Your task to perform on an android device: turn pop-ups on in chrome Image 0: 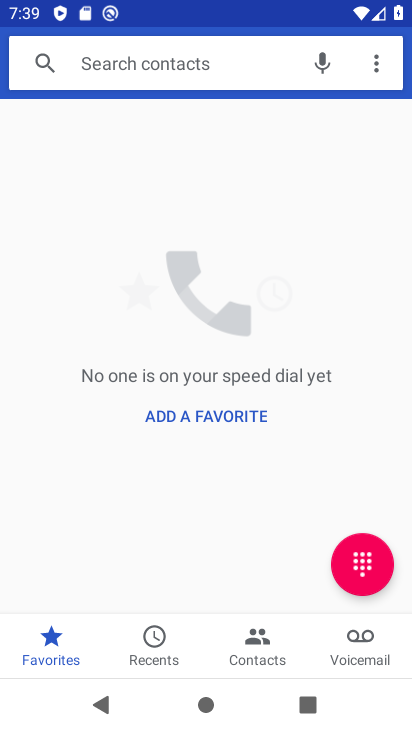
Step 0: press home button
Your task to perform on an android device: turn pop-ups on in chrome Image 1: 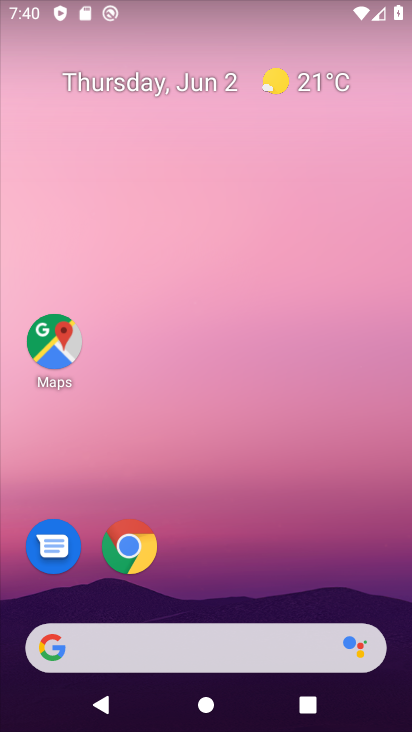
Step 1: click (128, 559)
Your task to perform on an android device: turn pop-ups on in chrome Image 2: 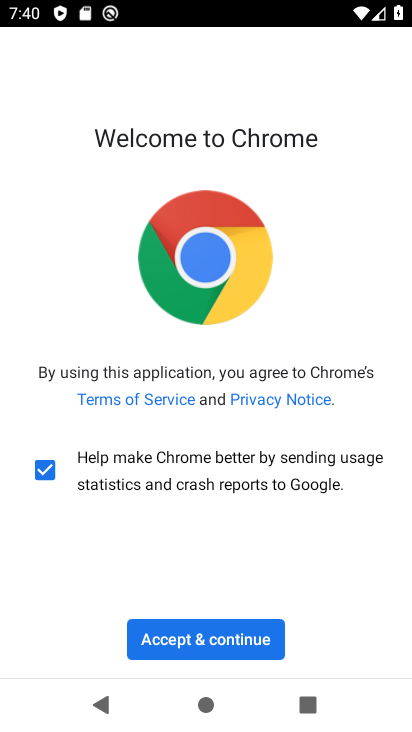
Step 2: click (195, 635)
Your task to perform on an android device: turn pop-ups on in chrome Image 3: 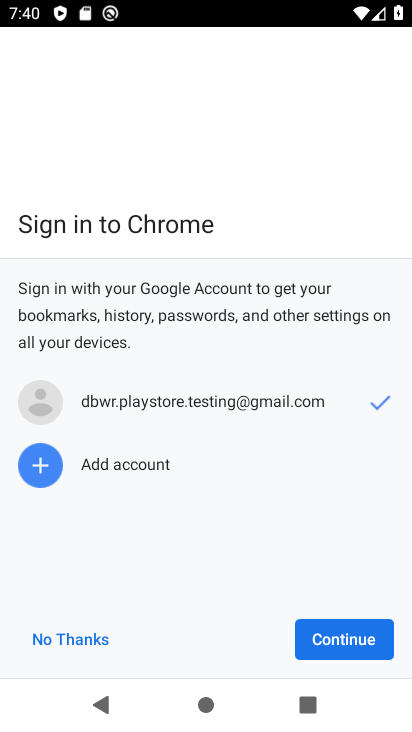
Step 3: click (357, 636)
Your task to perform on an android device: turn pop-ups on in chrome Image 4: 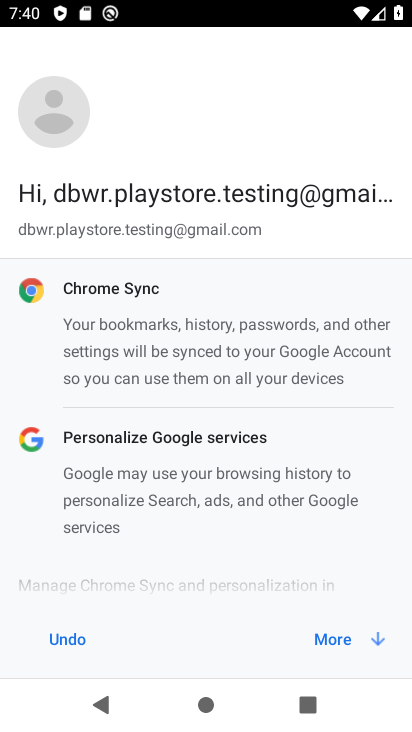
Step 4: click (357, 636)
Your task to perform on an android device: turn pop-ups on in chrome Image 5: 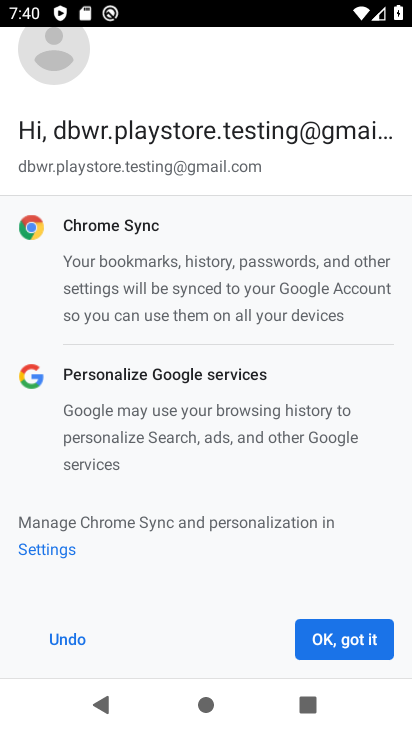
Step 5: click (357, 636)
Your task to perform on an android device: turn pop-ups on in chrome Image 6: 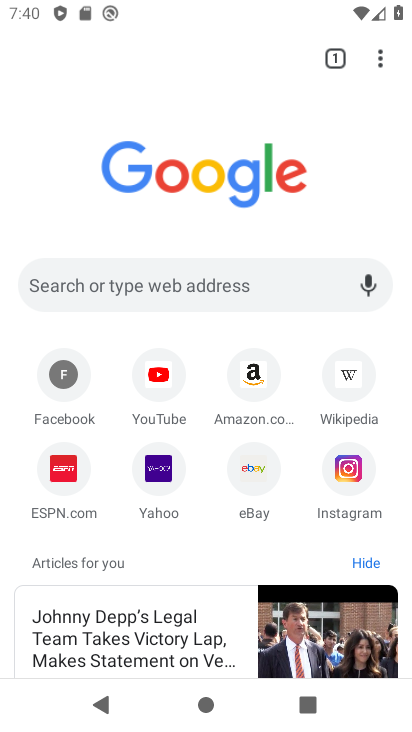
Step 6: click (378, 58)
Your task to perform on an android device: turn pop-ups on in chrome Image 7: 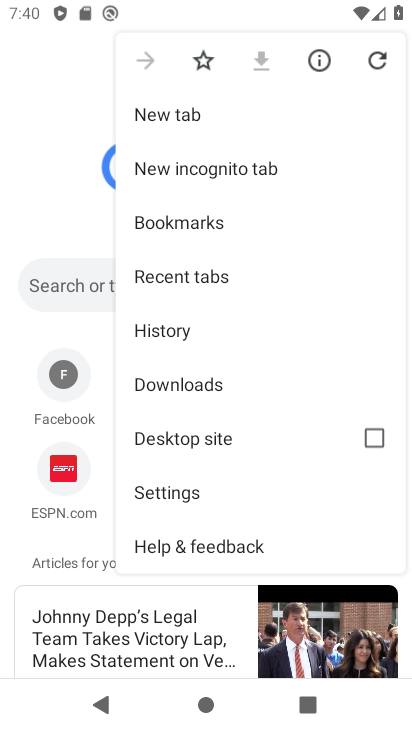
Step 7: click (215, 488)
Your task to perform on an android device: turn pop-ups on in chrome Image 8: 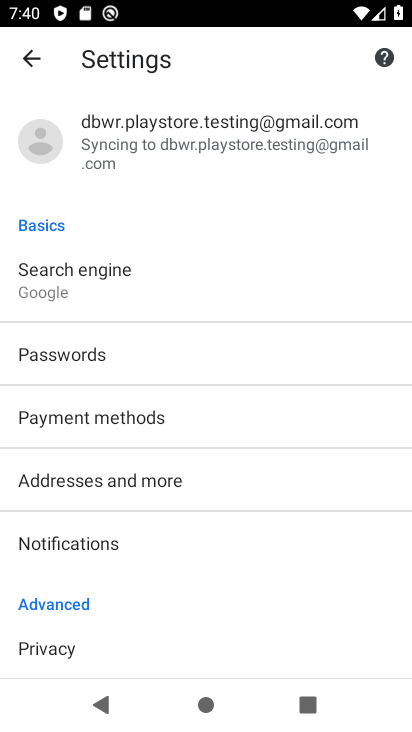
Step 8: drag from (228, 470) to (215, 225)
Your task to perform on an android device: turn pop-ups on in chrome Image 9: 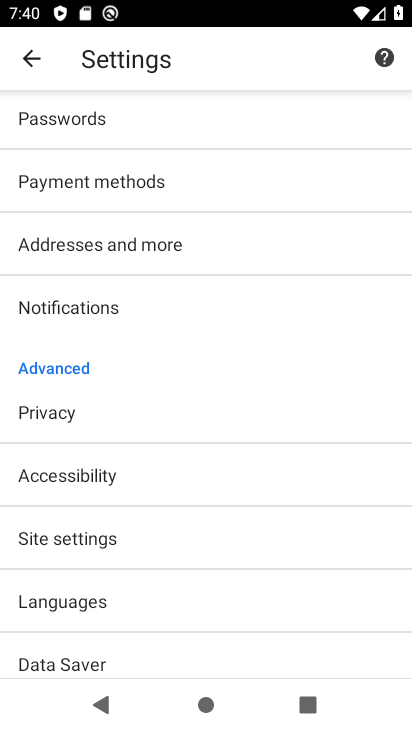
Step 9: click (178, 529)
Your task to perform on an android device: turn pop-ups on in chrome Image 10: 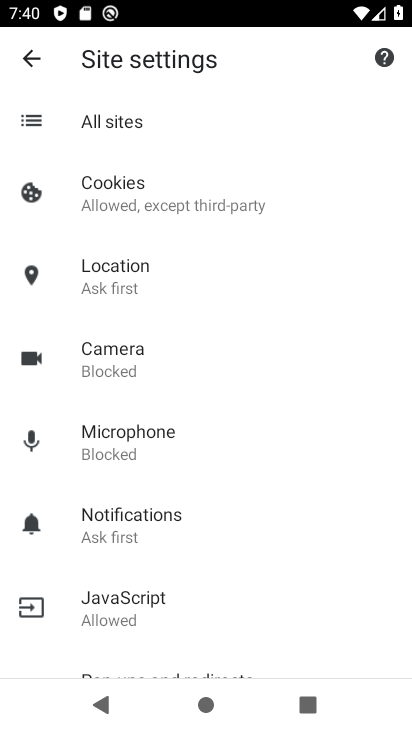
Step 10: drag from (234, 466) to (234, 192)
Your task to perform on an android device: turn pop-ups on in chrome Image 11: 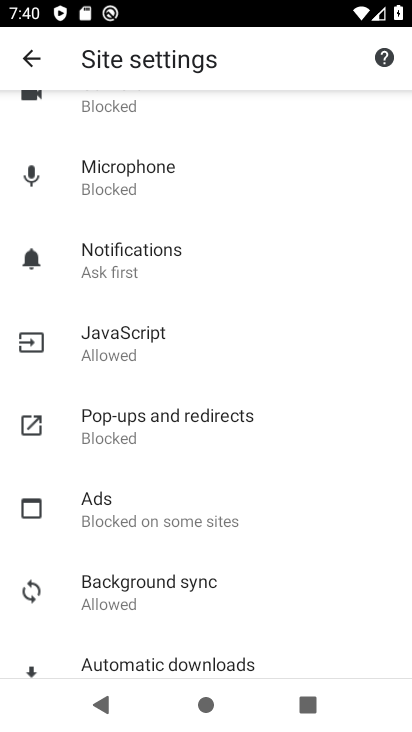
Step 11: click (210, 420)
Your task to perform on an android device: turn pop-ups on in chrome Image 12: 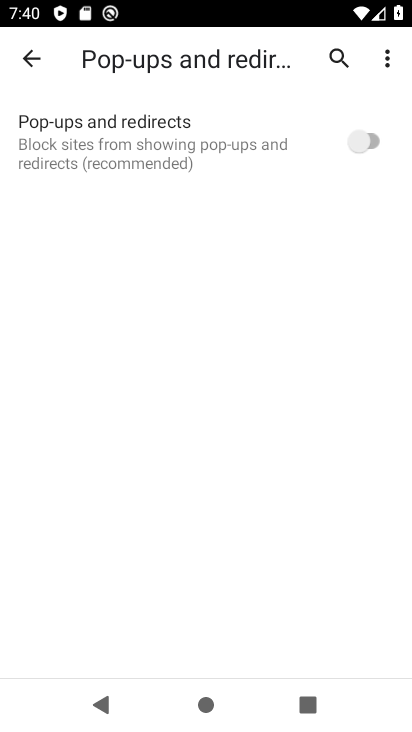
Step 12: click (353, 132)
Your task to perform on an android device: turn pop-ups on in chrome Image 13: 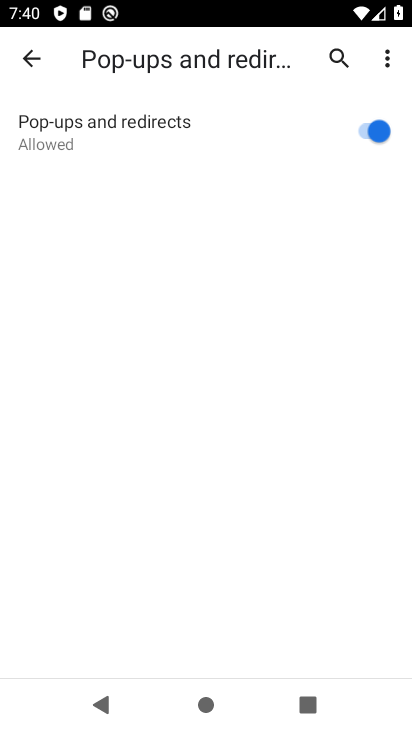
Step 13: task complete